Your task to perform on an android device: Go to settings Image 0: 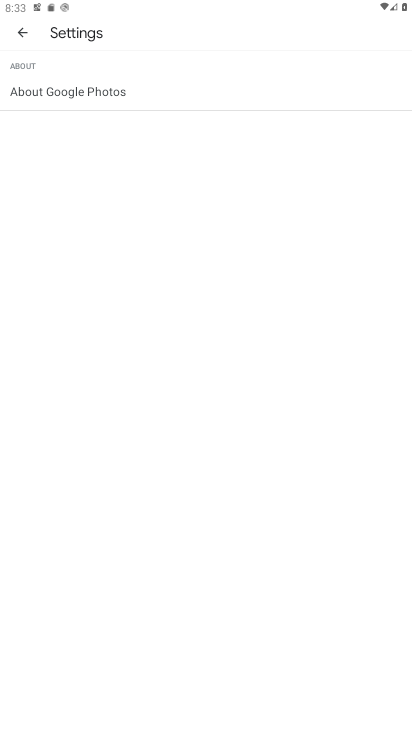
Step 0: press home button
Your task to perform on an android device: Go to settings Image 1: 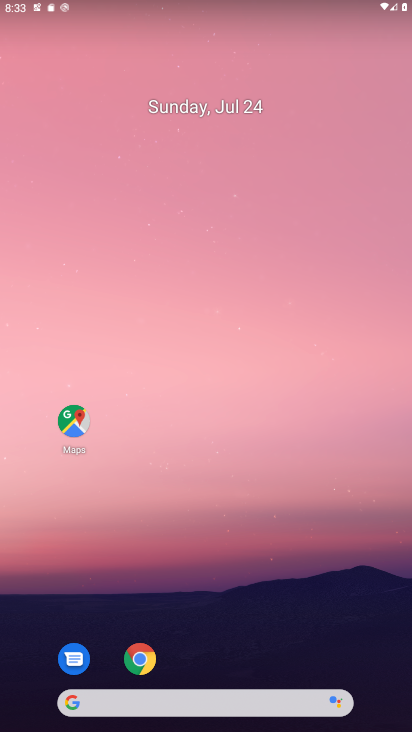
Step 1: drag from (222, 604) to (200, 344)
Your task to perform on an android device: Go to settings Image 2: 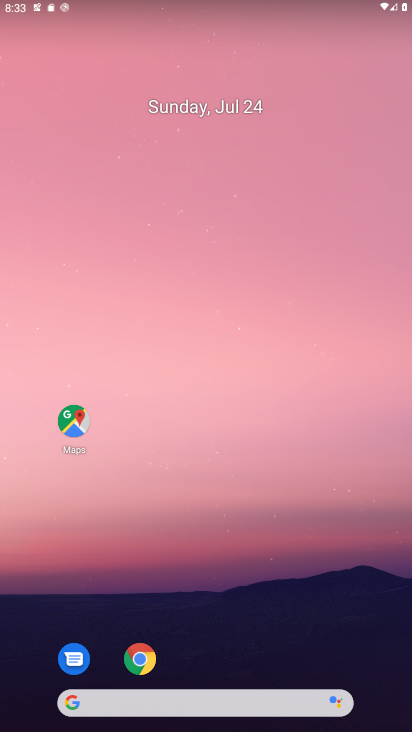
Step 2: drag from (221, 726) to (211, 184)
Your task to perform on an android device: Go to settings Image 3: 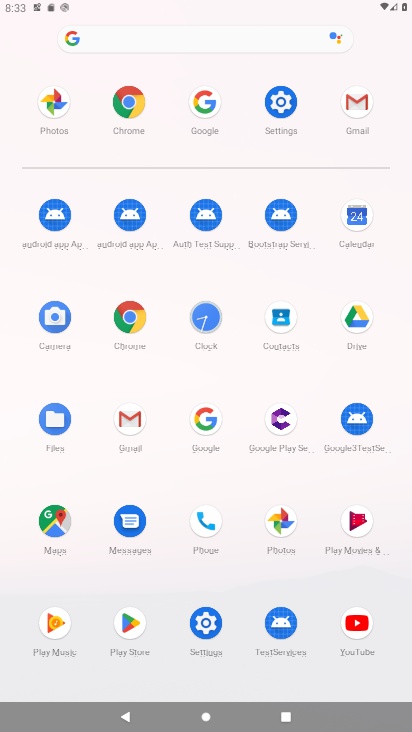
Step 3: click (282, 102)
Your task to perform on an android device: Go to settings Image 4: 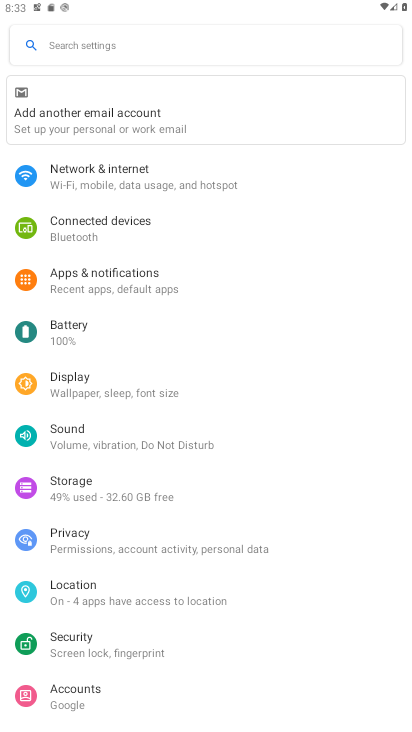
Step 4: task complete